Your task to perform on an android device: Is it going to rain tomorrow? Image 0: 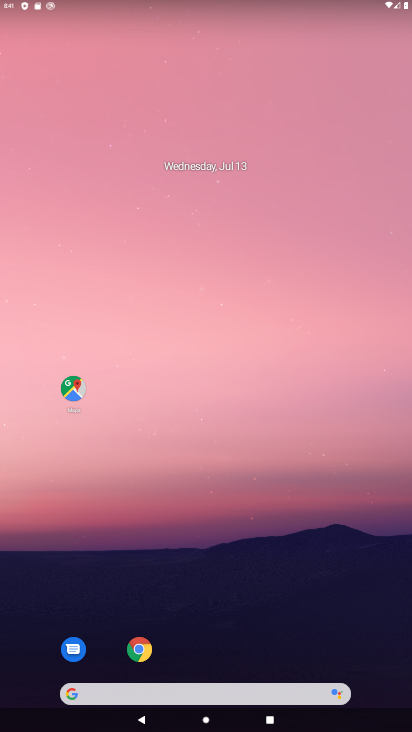
Step 0: click (164, 690)
Your task to perform on an android device: Is it going to rain tomorrow? Image 1: 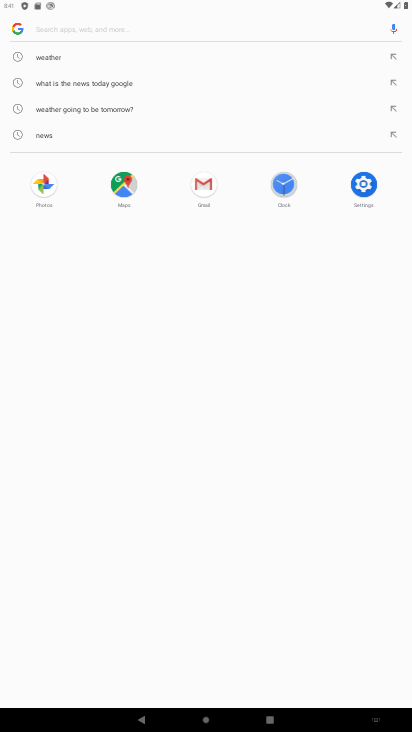
Step 1: type "is it going to rain tomorrow?"
Your task to perform on an android device: Is it going to rain tomorrow? Image 2: 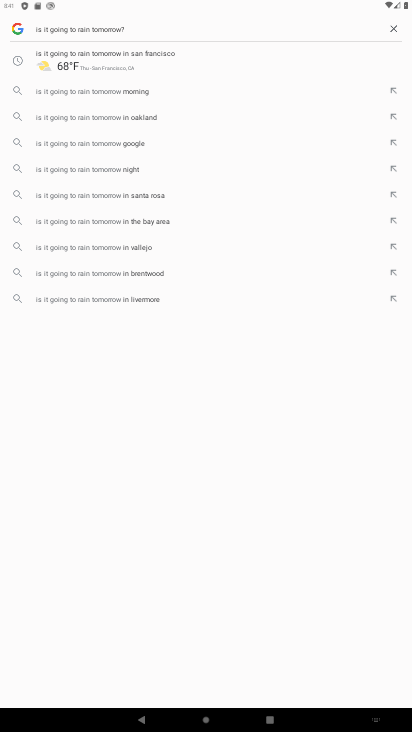
Step 2: click (136, 153)
Your task to perform on an android device: Is it going to rain tomorrow? Image 3: 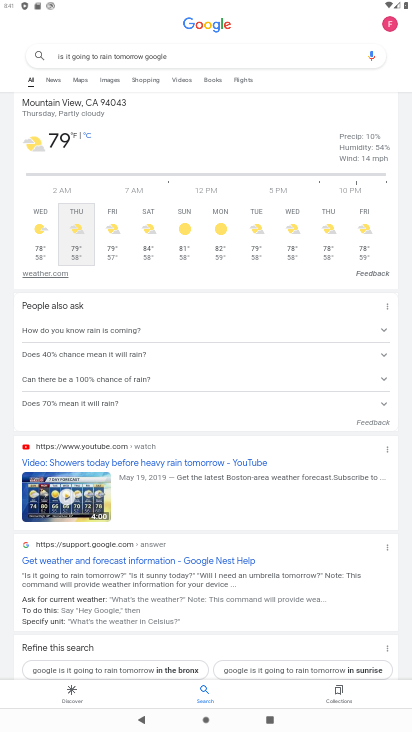
Step 3: task complete